Your task to perform on an android device: turn on javascript in the chrome app Image 0: 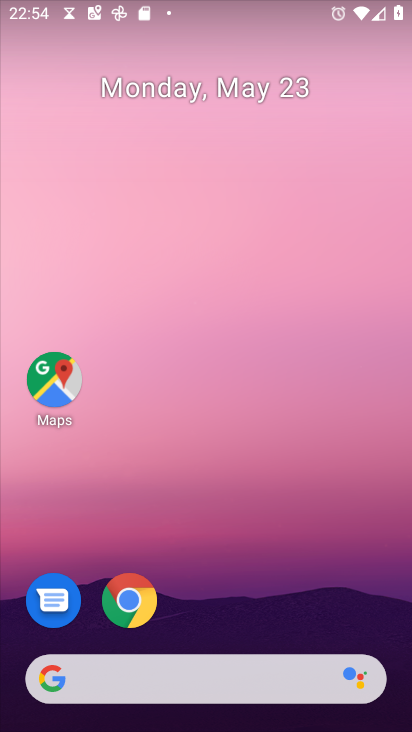
Step 0: click (131, 602)
Your task to perform on an android device: turn on javascript in the chrome app Image 1: 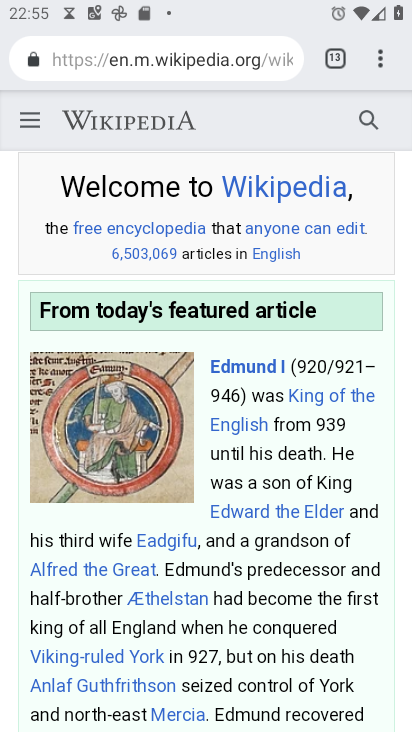
Step 1: click (381, 63)
Your task to perform on an android device: turn on javascript in the chrome app Image 2: 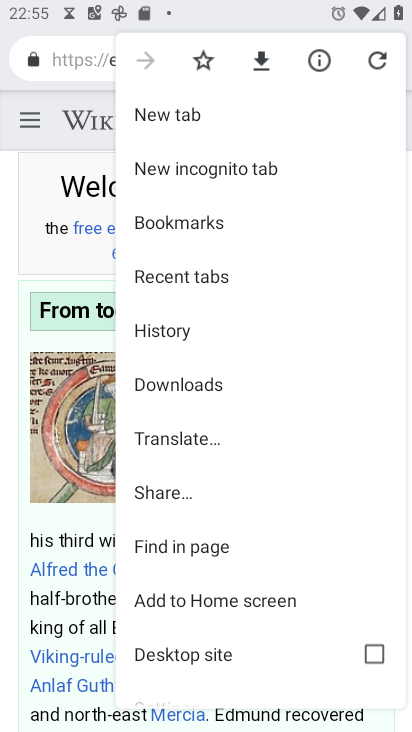
Step 2: drag from (232, 677) to (205, 261)
Your task to perform on an android device: turn on javascript in the chrome app Image 3: 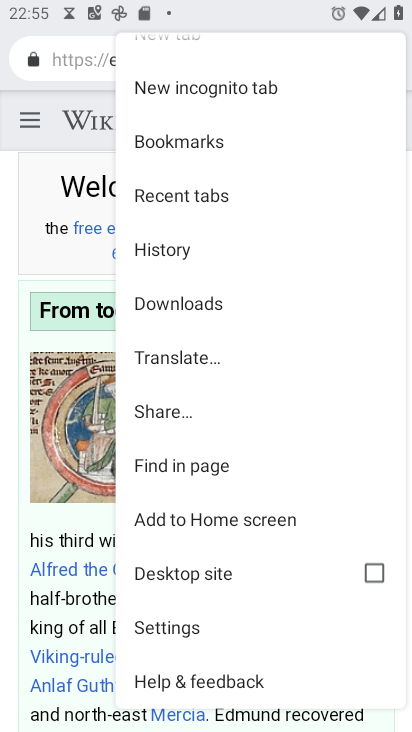
Step 3: click (162, 623)
Your task to perform on an android device: turn on javascript in the chrome app Image 4: 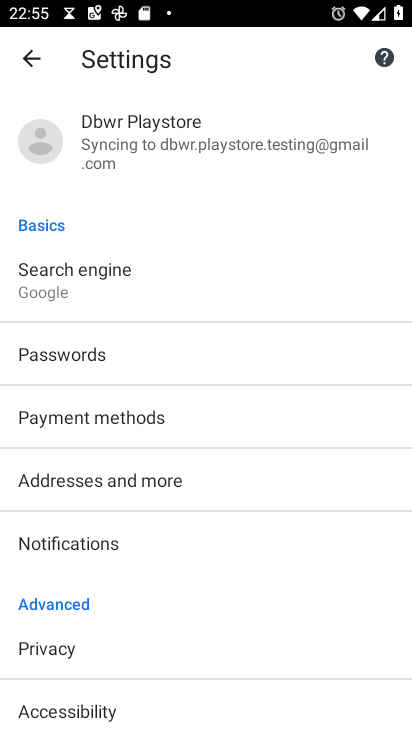
Step 4: drag from (156, 661) to (151, 223)
Your task to perform on an android device: turn on javascript in the chrome app Image 5: 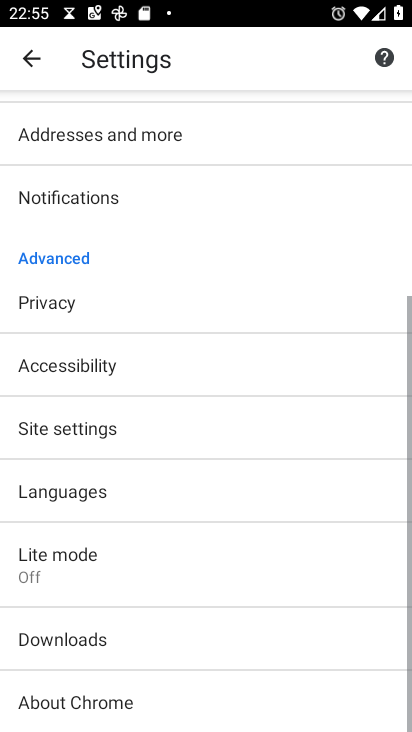
Step 5: click (70, 430)
Your task to perform on an android device: turn on javascript in the chrome app Image 6: 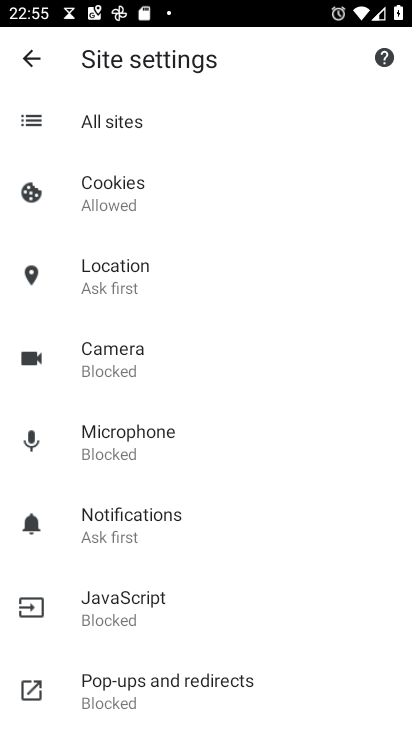
Step 6: click (121, 617)
Your task to perform on an android device: turn on javascript in the chrome app Image 7: 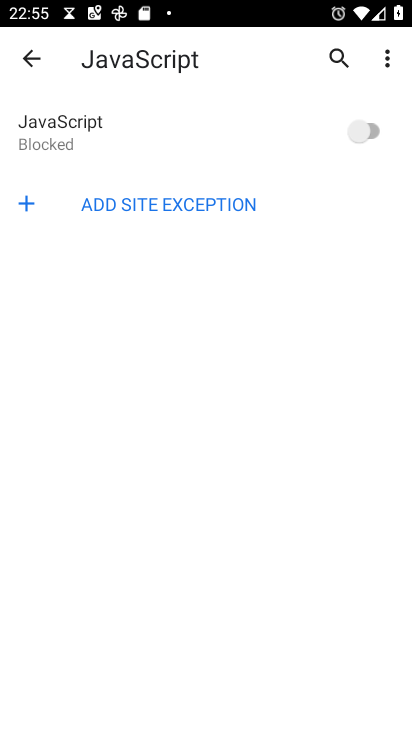
Step 7: click (374, 131)
Your task to perform on an android device: turn on javascript in the chrome app Image 8: 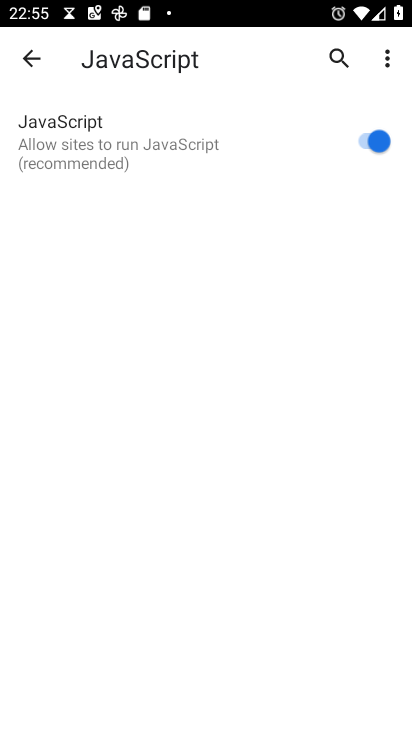
Step 8: task complete